Your task to perform on an android device: visit the assistant section in the google photos Image 0: 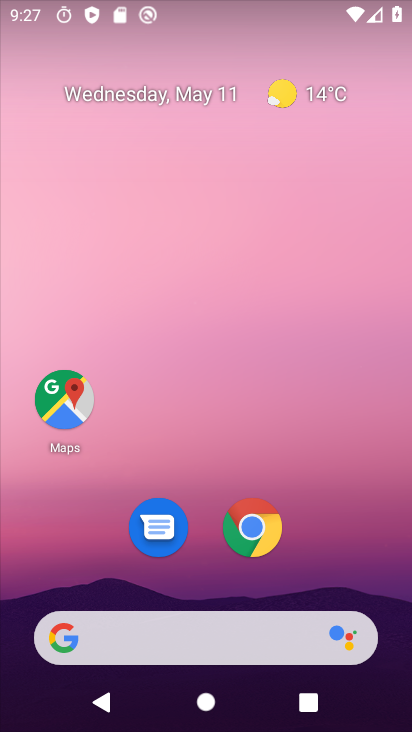
Step 0: drag from (265, 585) to (258, 40)
Your task to perform on an android device: visit the assistant section in the google photos Image 1: 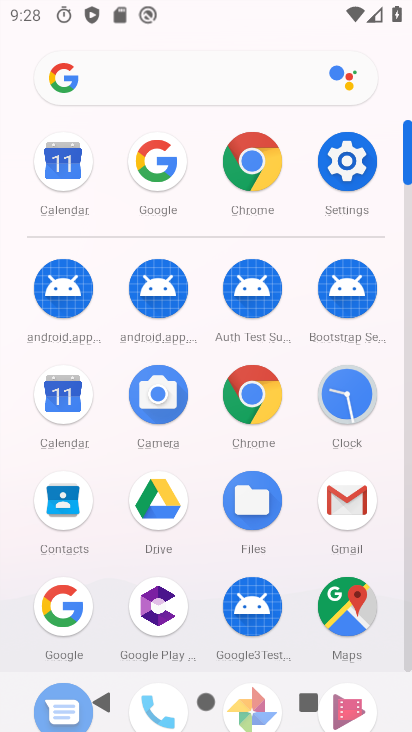
Step 1: drag from (205, 537) to (261, 313)
Your task to perform on an android device: visit the assistant section in the google photos Image 2: 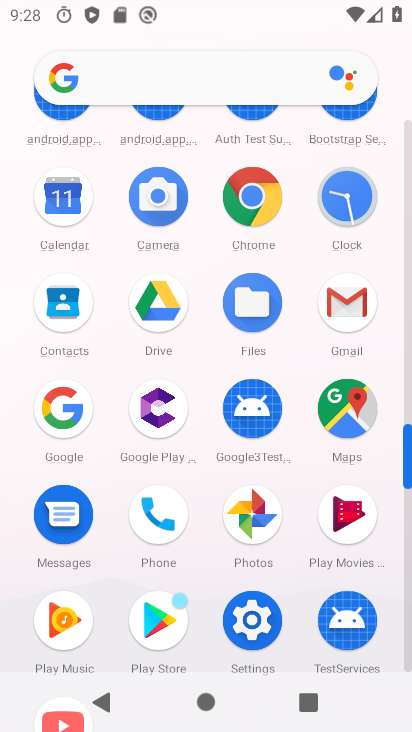
Step 2: click (241, 542)
Your task to perform on an android device: visit the assistant section in the google photos Image 3: 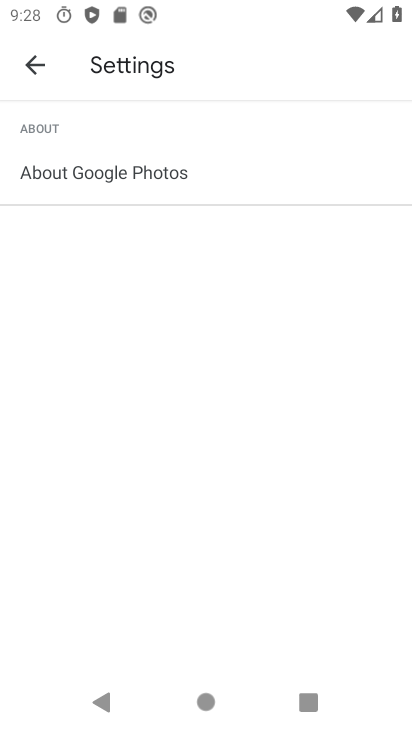
Step 3: click (35, 76)
Your task to perform on an android device: visit the assistant section in the google photos Image 4: 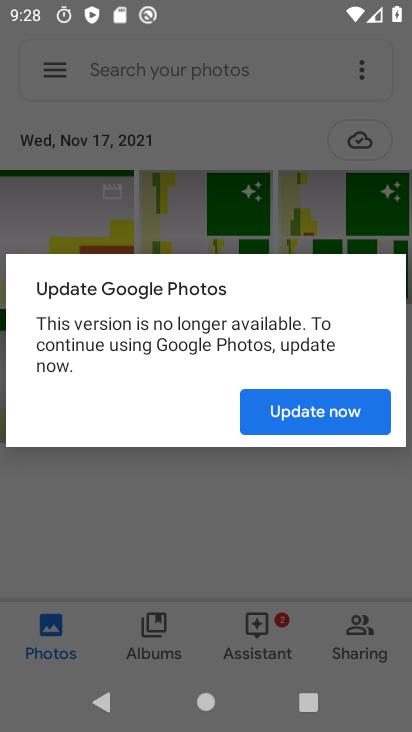
Step 4: task complete